Your task to perform on an android device: set the timer Image 0: 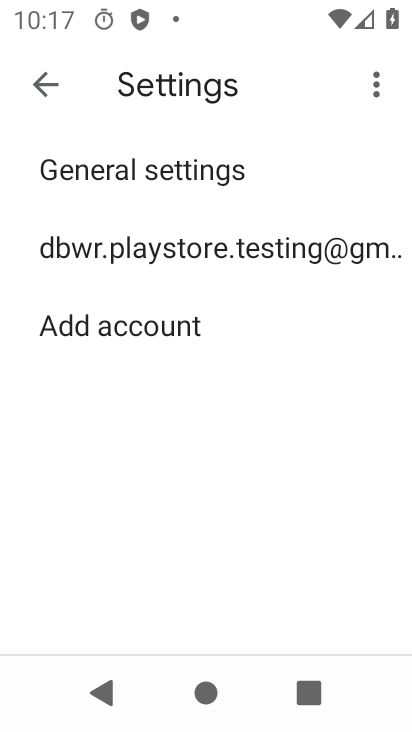
Step 0: press home button
Your task to perform on an android device: set the timer Image 1: 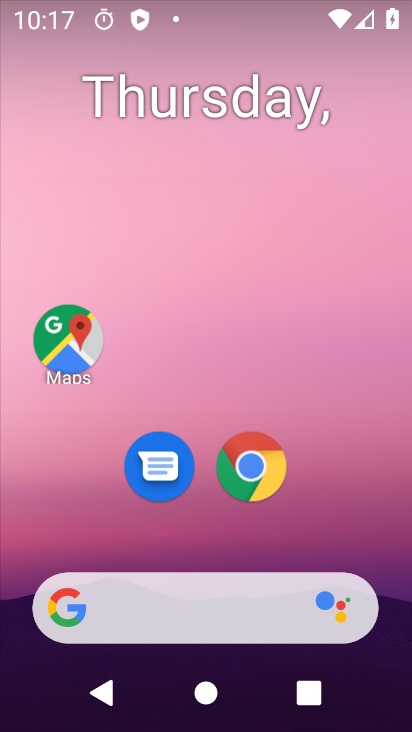
Step 1: drag from (179, 632) to (331, 73)
Your task to perform on an android device: set the timer Image 2: 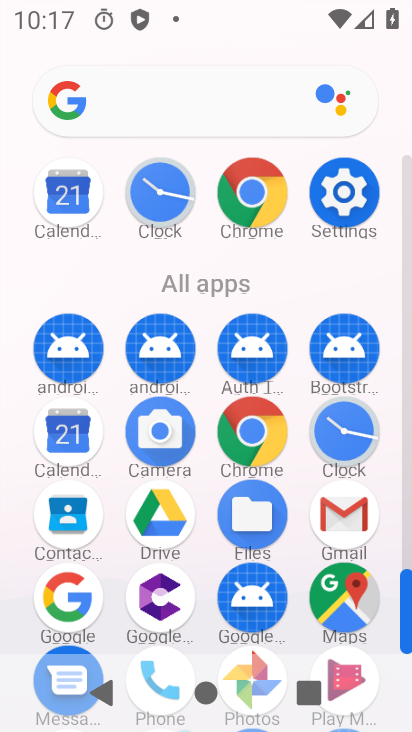
Step 2: click (331, 426)
Your task to perform on an android device: set the timer Image 3: 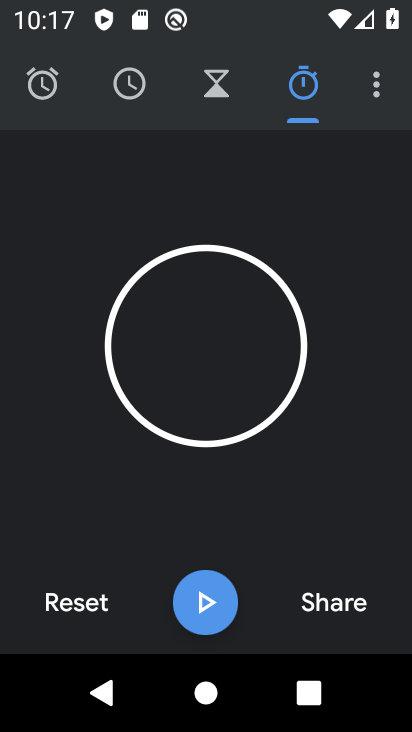
Step 3: click (217, 84)
Your task to perform on an android device: set the timer Image 4: 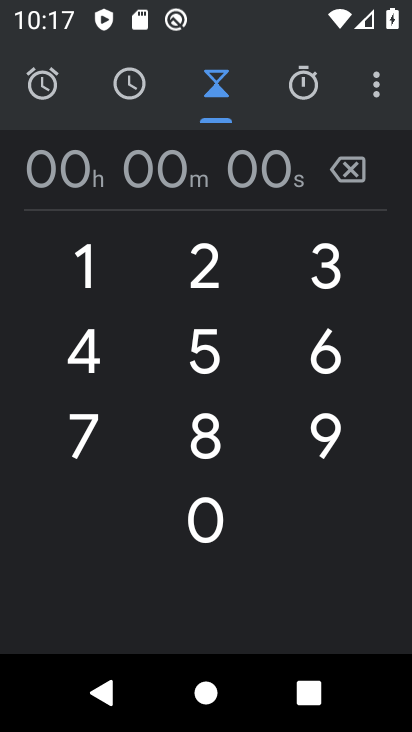
Step 4: click (206, 445)
Your task to perform on an android device: set the timer Image 5: 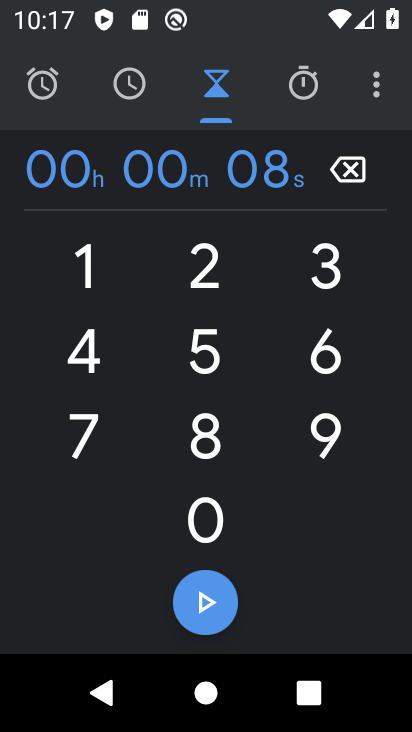
Step 5: click (209, 443)
Your task to perform on an android device: set the timer Image 6: 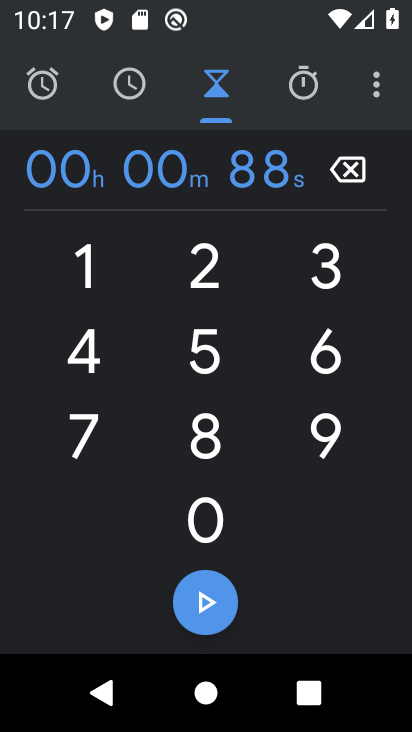
Step 6: click (211, 607)
Your task to perform on an android device: set the timer Image 7: 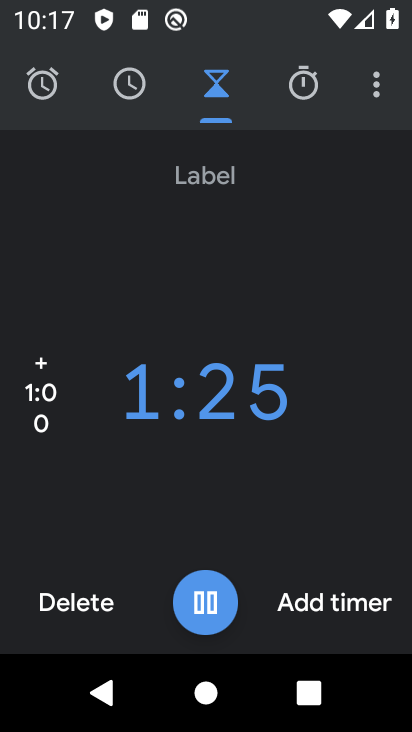
Step 7: click (203, 611)
Your task to perform on an android device: set the timer Image 8: 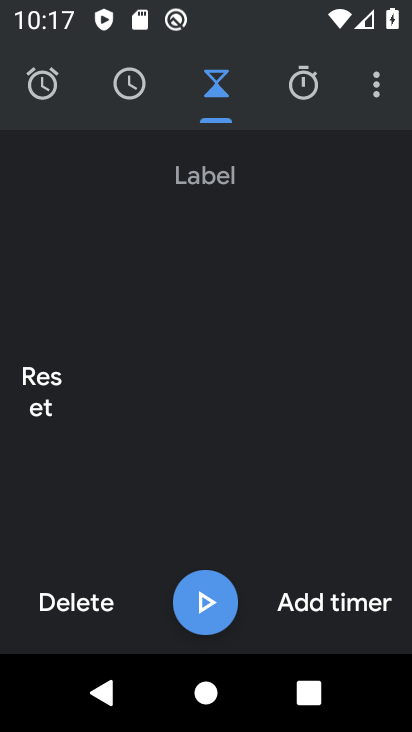
Step 8: task complete